Your task to perform on an android device: change text size in settings app Image 0: 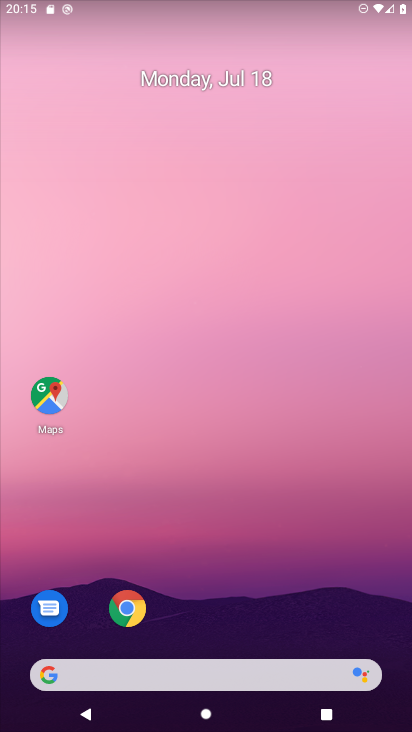
Step 0: drag from (235, 648) to (247, 131)
Your task to perform on an android device: change text size in settings app Image 1: 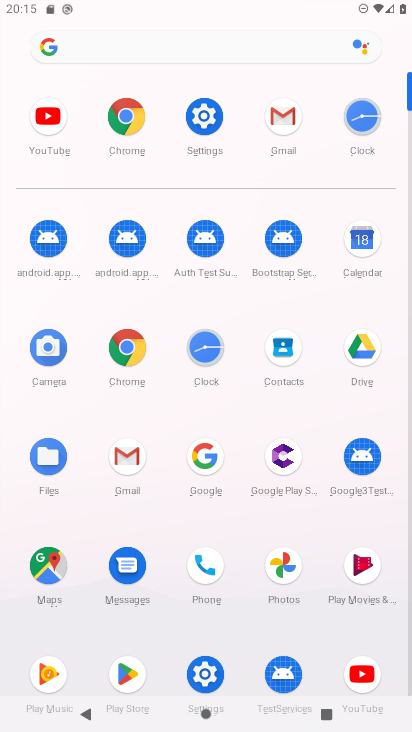
Step 1: click (209, 674)
Your task to perform on an android device: change text size in settings app Image 2: 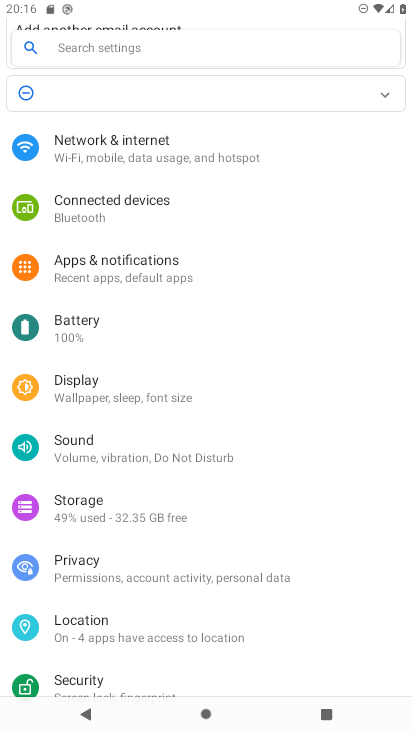
Step 2: click (122, 382)
Your task to perform on an android device: change text size in settings app Image 3: 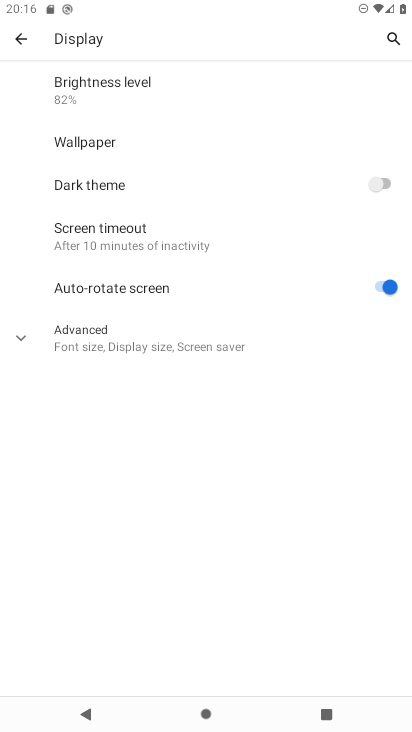
Step 3: click (55, 340)
Your task to perform on an android device: change text size in settings app Image 4: 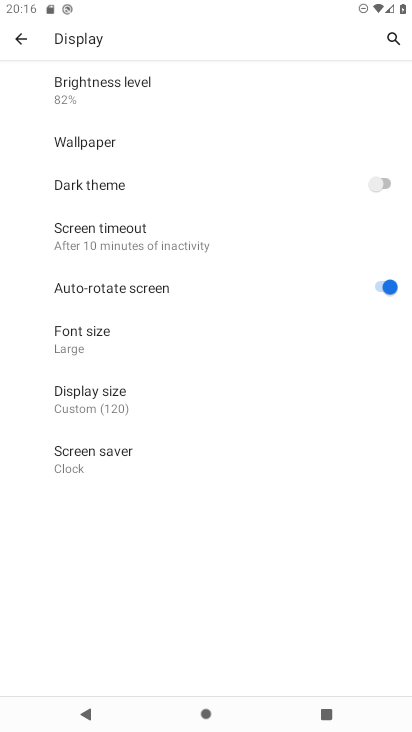
Step 4: click (97, 344)
Your task to perform on an android device: change text size in settings app Image 5: 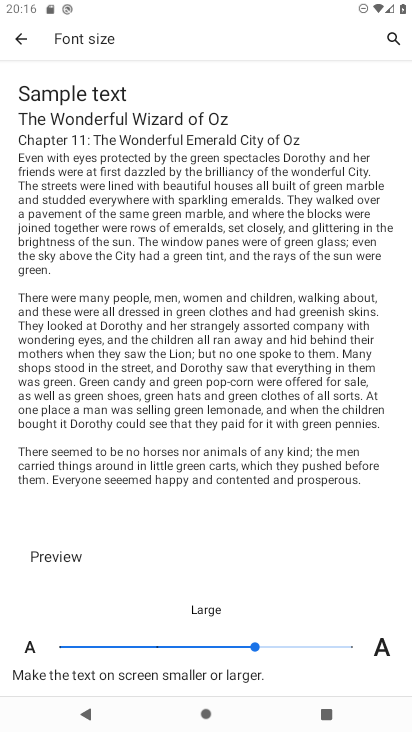
Step 5: task complete